Your task to perform on an android device: change timer sound Image 0: 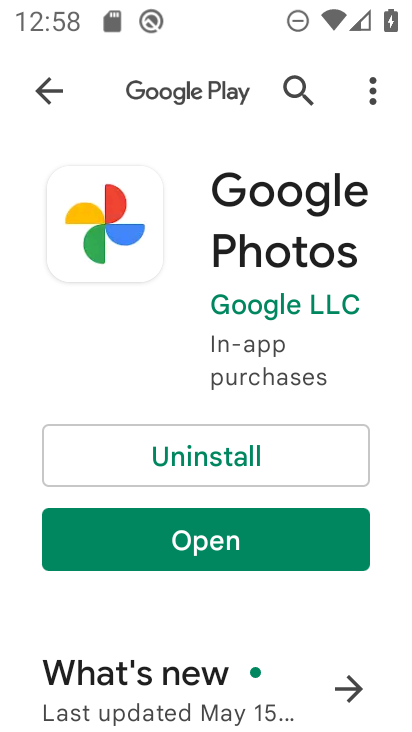
Step 0: press home button
Your task to perform on an android device: change timer sound Image 1: 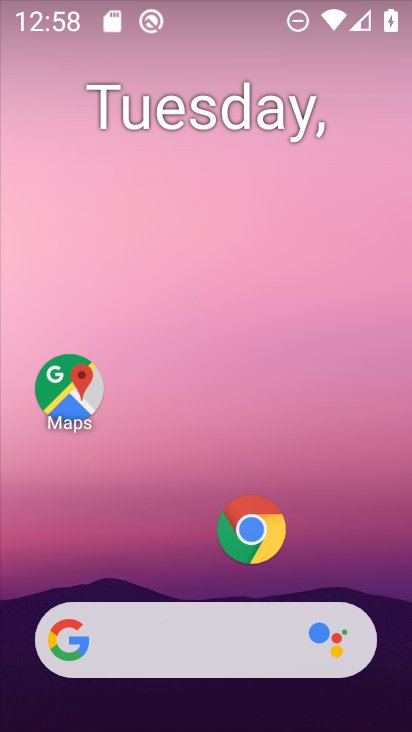
Step 1: drag from (220, 667) to (161, 11)
Your task to perform on an android device: change timer sound Image 2: 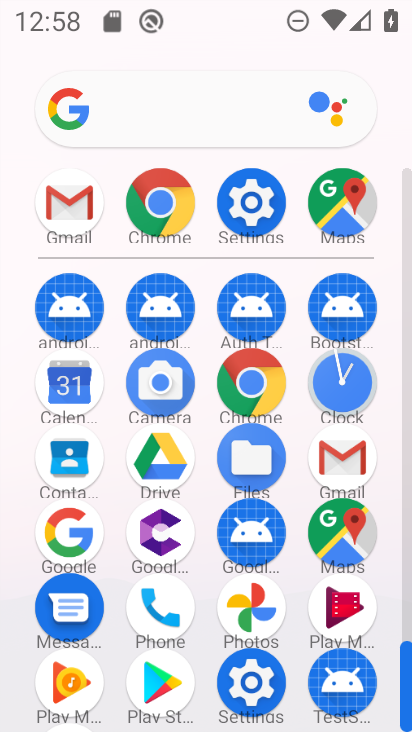
Step 2: click (341, 381)
Your task to perform on an android device: change timer sound Image 3: 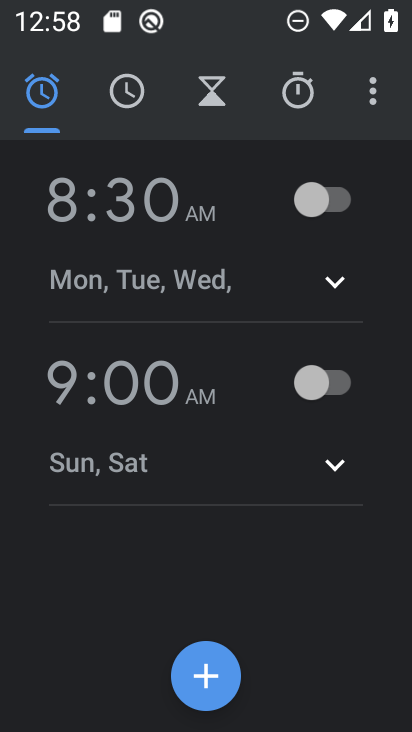
Step 3: click (363, 103)
Your task to perform on an android device: change timer sound Image 4: 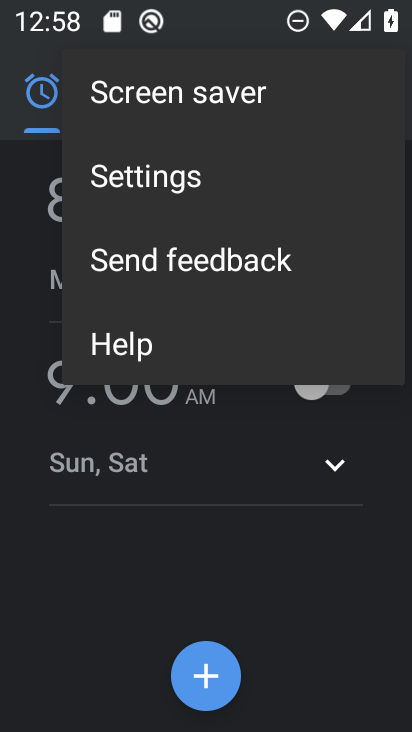
Step 4: click (182, 191)
Your task to perform on an android device: change timer sound Image 5: 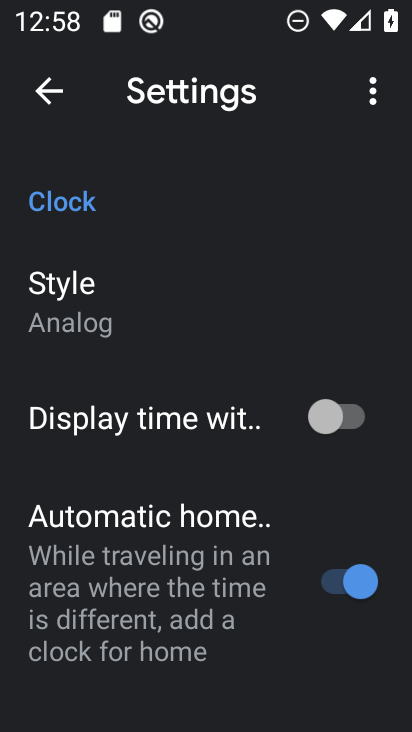
Step 5: drag from (193, 550) to (203, 263)
Your task to perform on an android device: change timer sound Image 6: 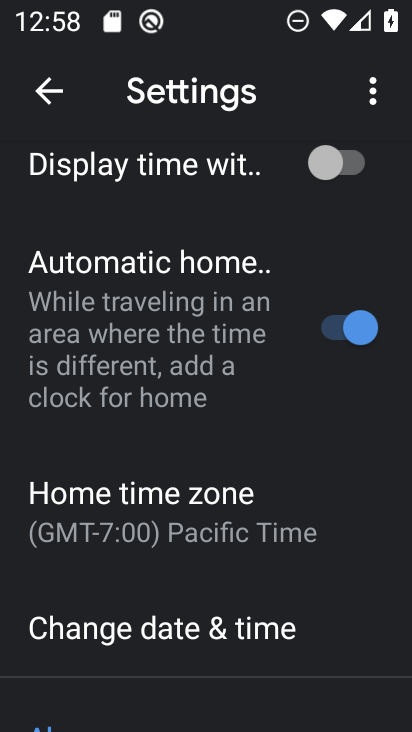
Step 6: drag from (164, 617) to (231, 145)
Your task to perform on an android device: change timer sound Image 7: 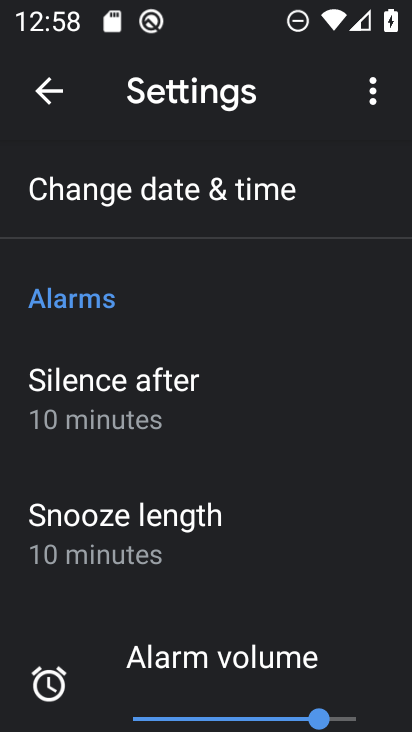
Step 7: drag from (154, 508) to (207, 258)
Your task to perform on an android device: change timer sound Image 8: 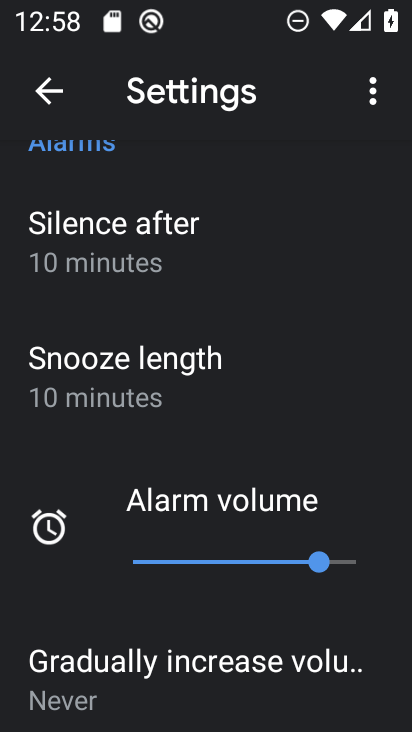
Step 8: drag from (147, 659) to (218, 352)
Your task to perform on an android device: change timer sound Image 9: 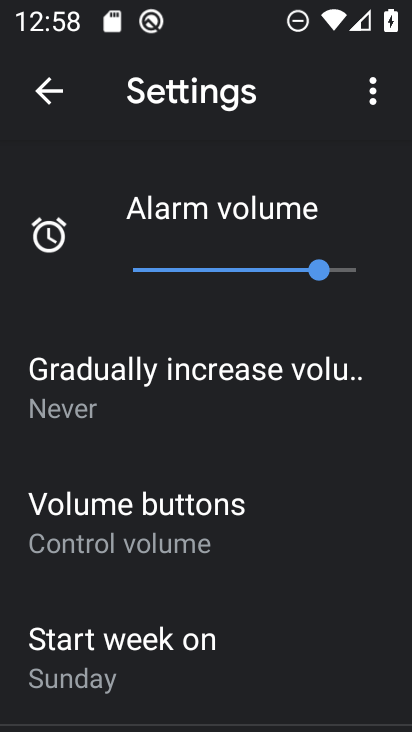
Step 9: drag from (182, 559) to (254, 269)
Your task to perform on an android device: change timer sound Image 10: 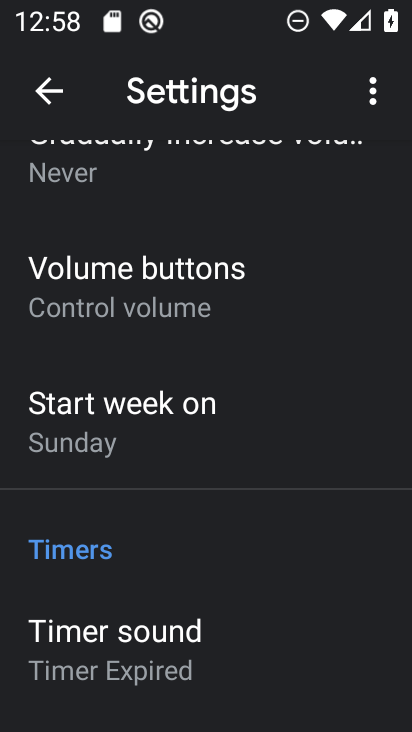
Step 10: click (148, 616)
Your task to perform on an android device: change timer sound Image 11: 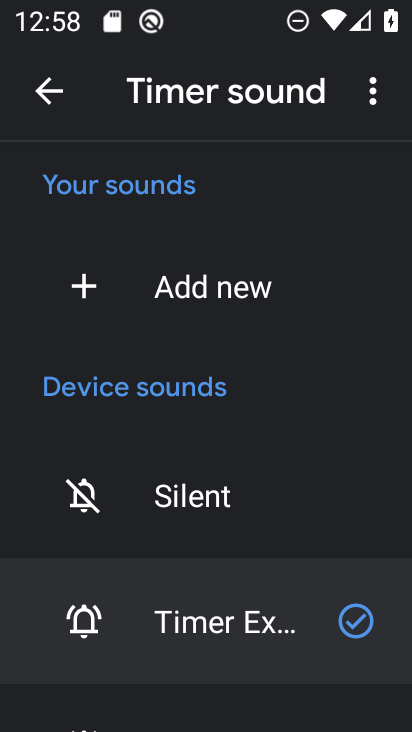
Step 11: drag from (179, 612) to (204, 410)
Your task to perform on an android device: change timer sound Image 12: 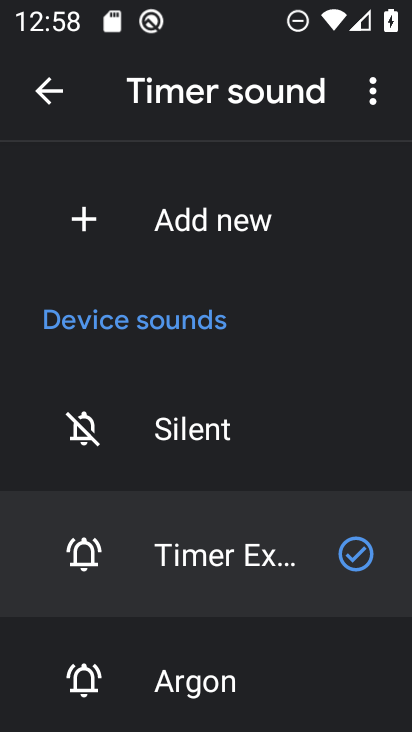
Step 12: click (162, 670)
Your task to perform on an android device: change timer sound Image 13: 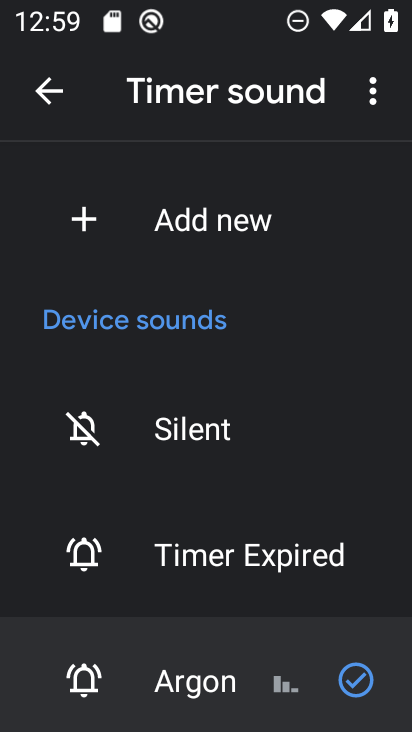
Step 13: task complete